Your task to perform on an android device: What is the news today? Image 0: 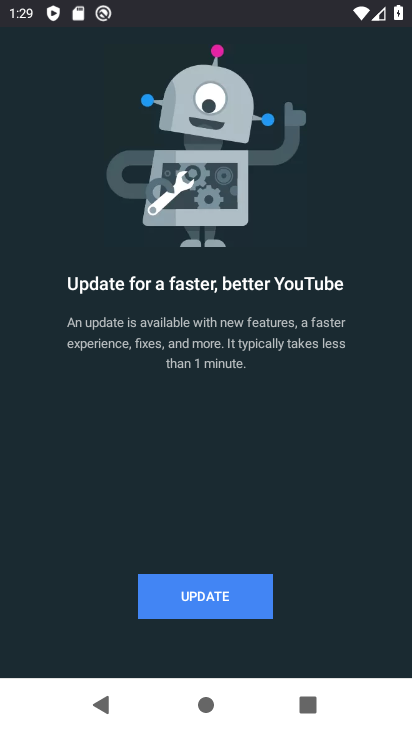
Step 0: press back button
Your task to perform on an android device: What is the news today? Image 1: 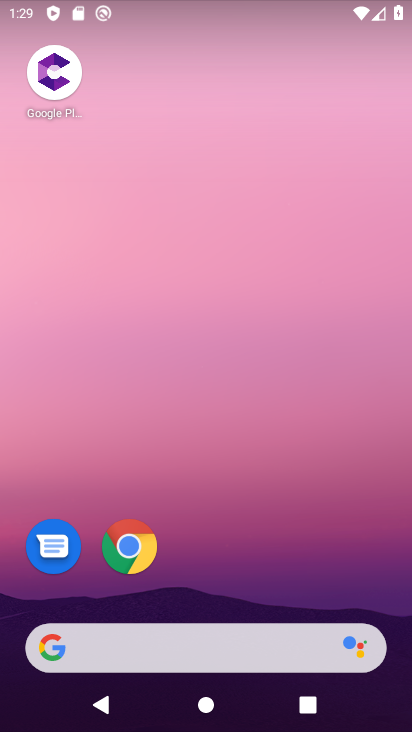
Step 1: click (136, 550)
Your task to perform on an android device: What is the news today? Image 2: 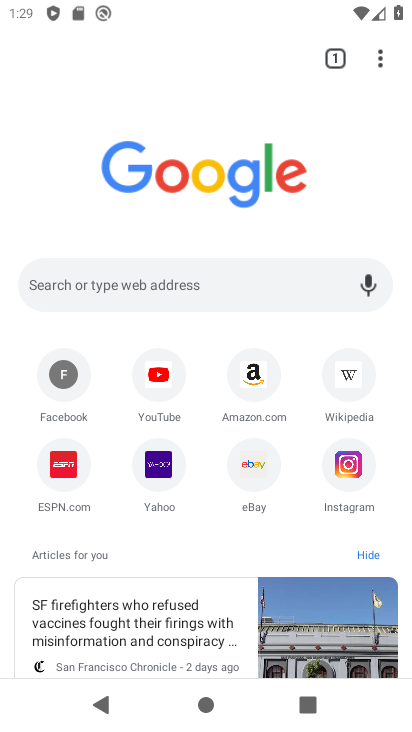
Step 2: click (186, 274)
Your task to perform on an android device: What is the news today? Image 3: 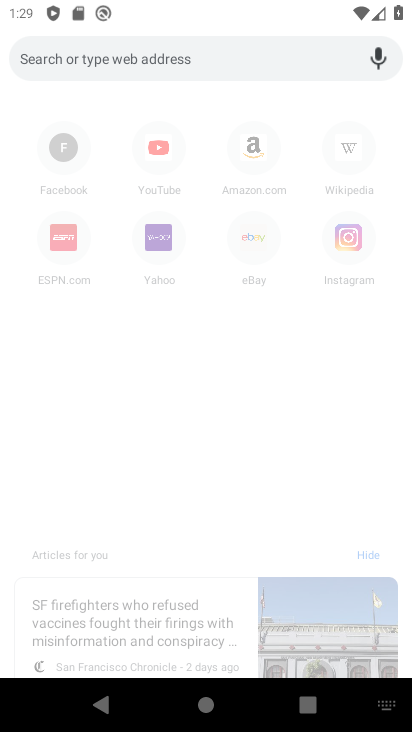
Step 3: type "news "
Your task to perform on an android device: What is the news today? Image 4: 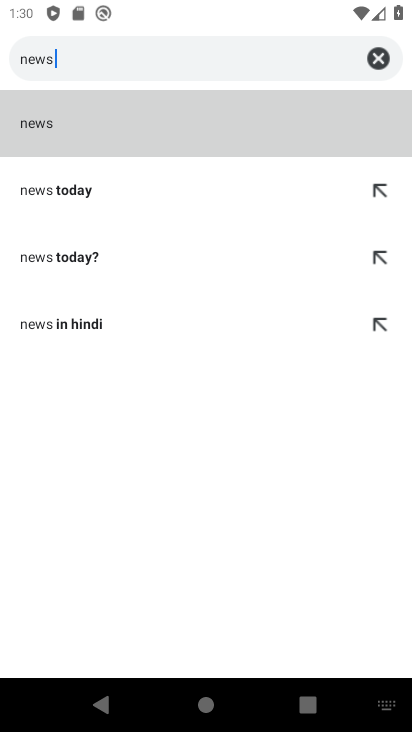
Step 4: click (63, 133)
Your task to perform on an android device: What is the news today? Image 5: 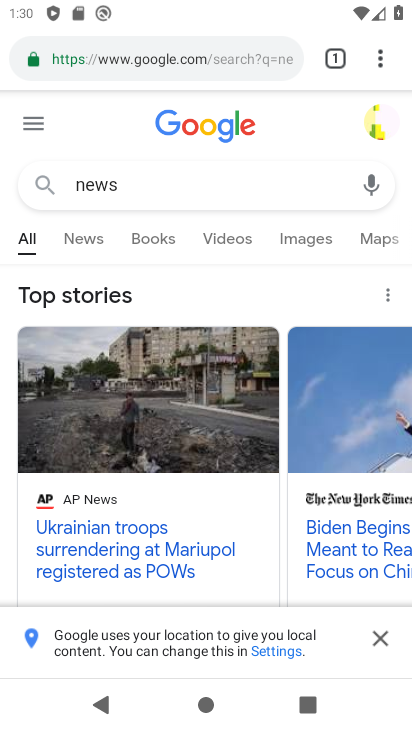
Step 5: task complete